Your task to perform on an android device: Open Android settings Image 0: 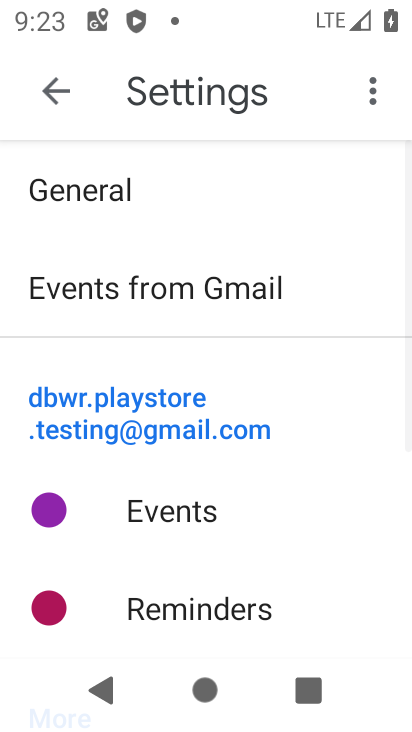
Step 0: press home button
Your task to perform on an android device: Open Android settings Image 1: 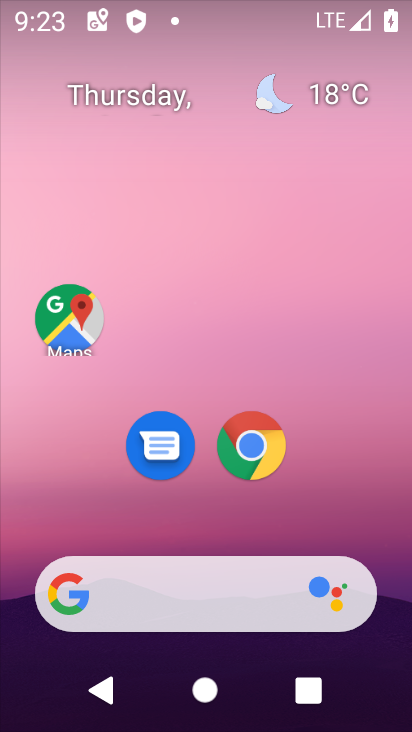
Step 1: drag from (349, 540) to (231, 107)
Your task to perform on an android device: Open Android settings Image 2: 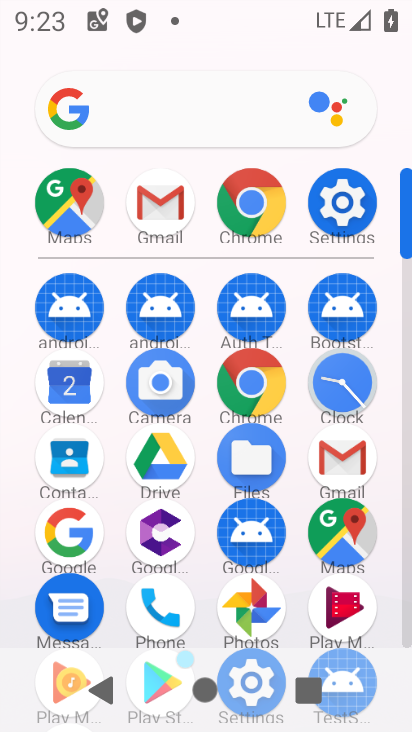
Step 2: click (318, 191)
Your task to perform on an android device: Open Android settings Image 3: 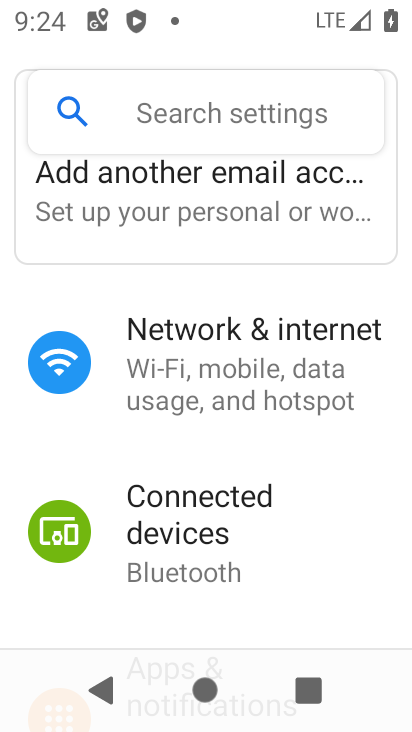
Step 3: task complete